Your task to perform on an android device: uninstall "Messages" Image 0: 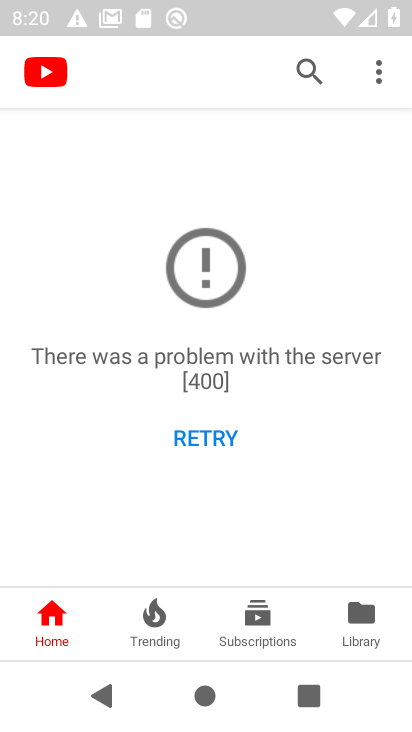
Step 0: press back button
Your task to perform on an android device: uninstall "Messages" Image 1: 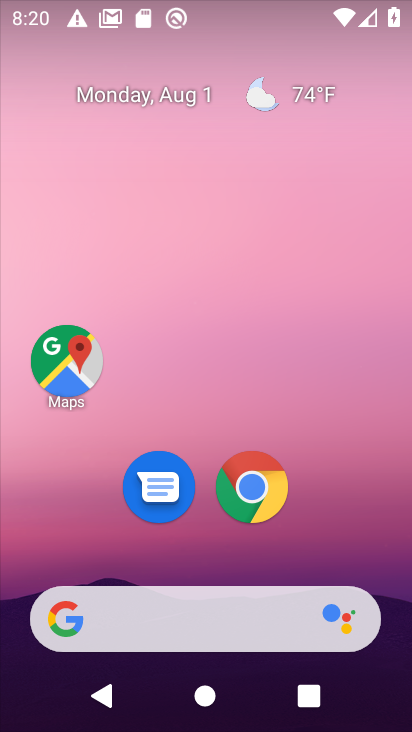
Step 1: drag from (199, 553) to (244, 9)
Your task to perform on an android device: uninstall "Messages" Image 2: 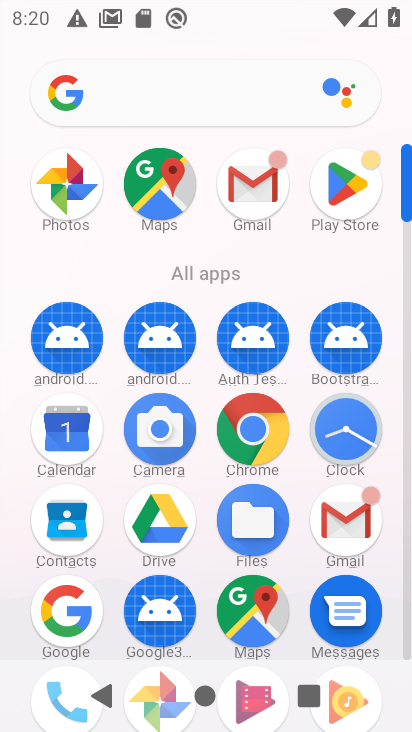
Step 2: click (342, 196)
Your task to perform on an android device: uninstall "Messages" Image 3: 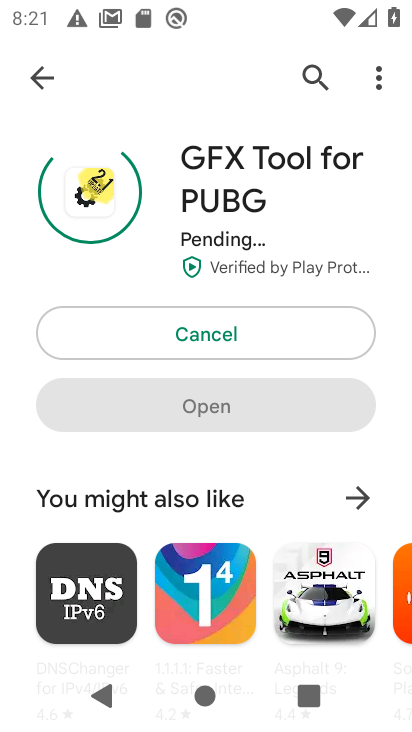
Step 3: click (242, 343)
Your task to perform on an android device: uninstall "Messages" Image 4: 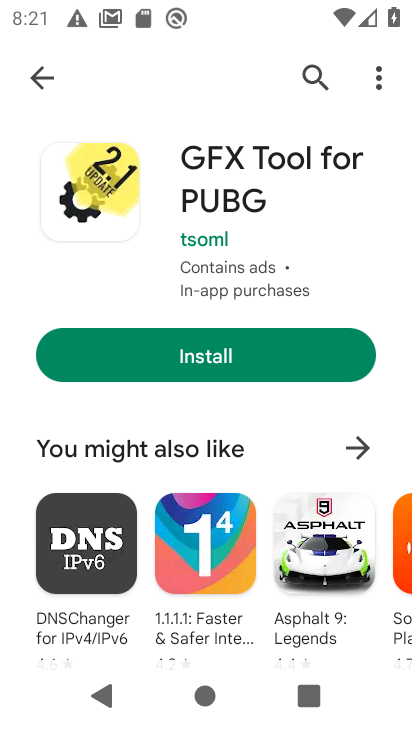
Step 4: click (35, 80)
Your task to perform on an android device: uninstall "Messages" Image 5: 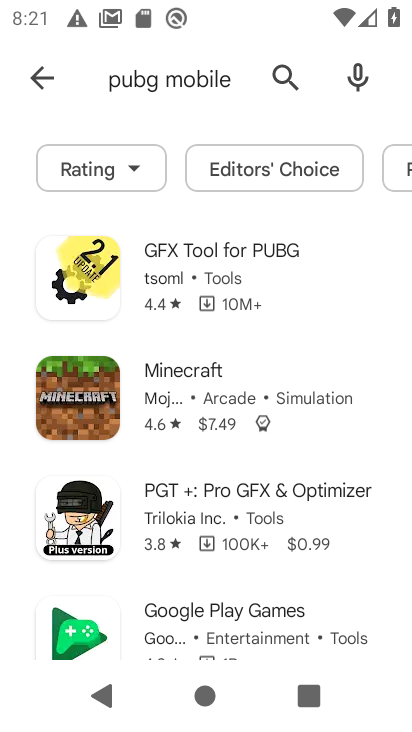
Step 5: click (280, 80)
Your task to perform on an android device: uninstall "Messages" Image 6: 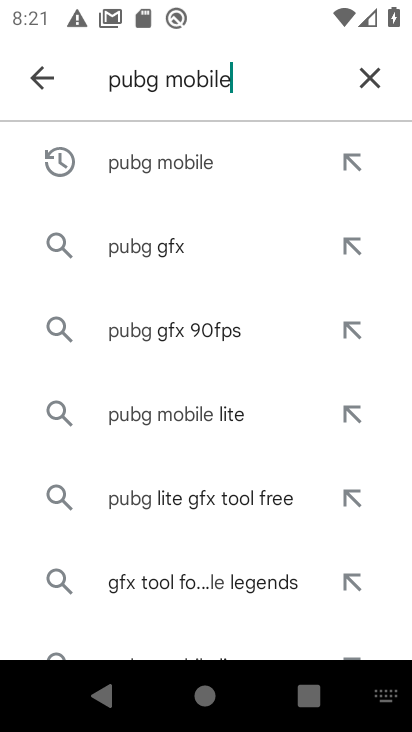
Step 6: click (373, 80)
Your task to perform on an android device: uninstall "Messages" Image 7: 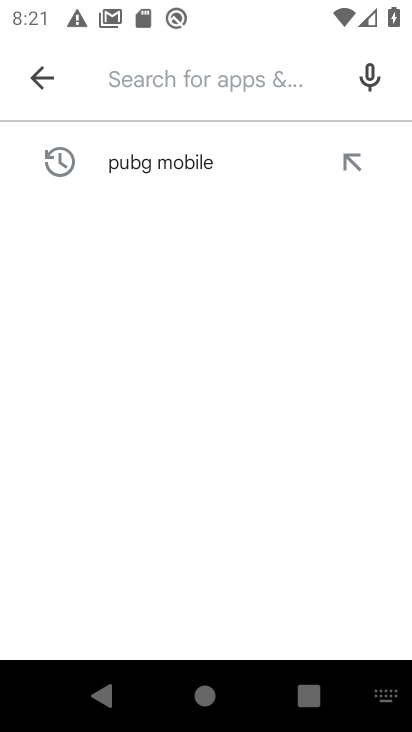
Step 7: type "Messages"
Your task to perform on an android device: uninstall "Messages" Image 8: 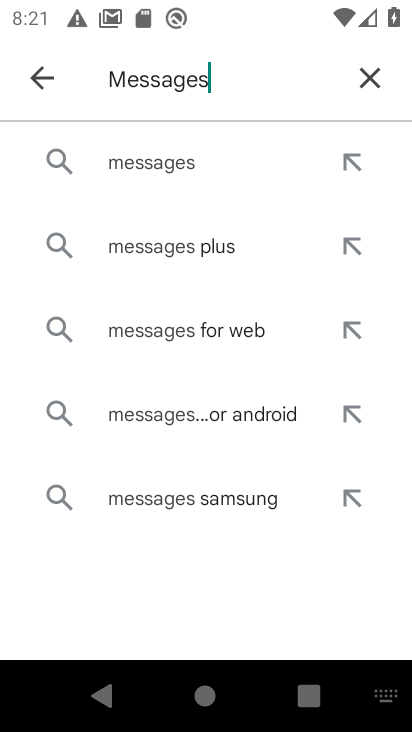
Step 8: click (134, 171)
Your task to perform on an android device: uninstall "Messages" Image 9: 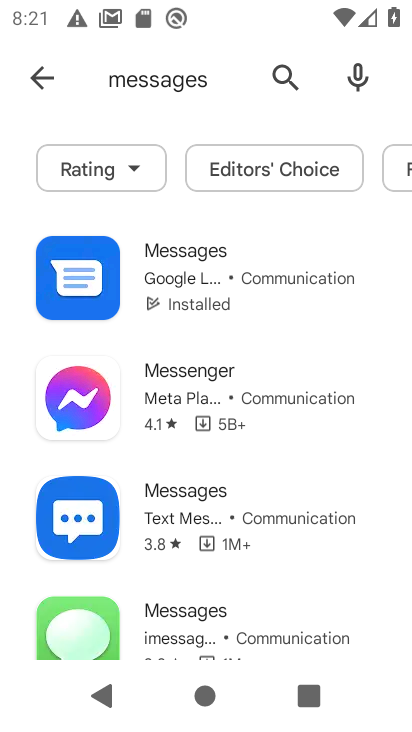
Step 9: click (205, 283)
Your task to perform on an android device: uninstall "Messages" Image 10: 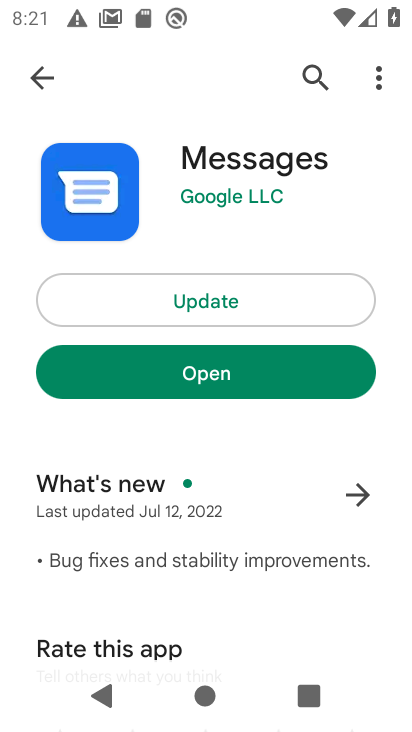
Step 10: click (184, 292)
Your task to perform on an android device: uninstall "Messages" Image 11: 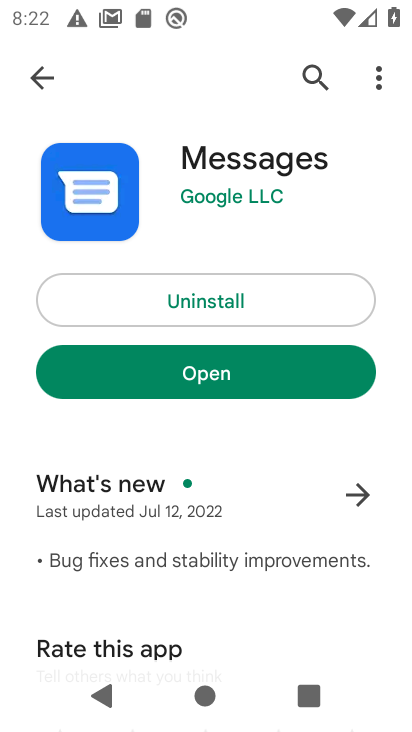
Step 11: click (313, 284)
Your task to perform on an android device: uninstall "Messages" Image 12: 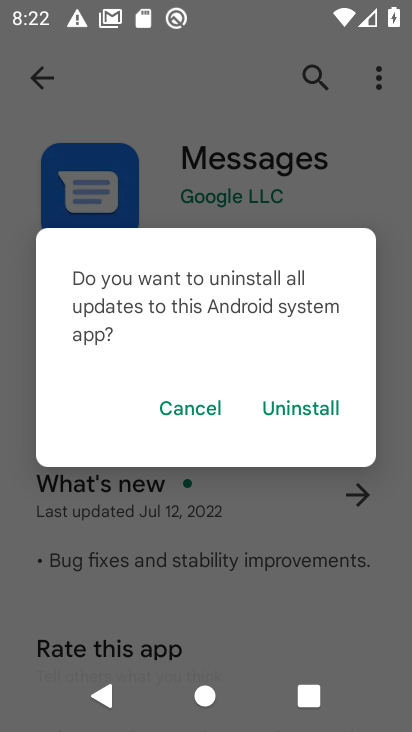
Step 12: click (289, 408)
Your task to perform on an android device: uninstall "Messages" Image 13: 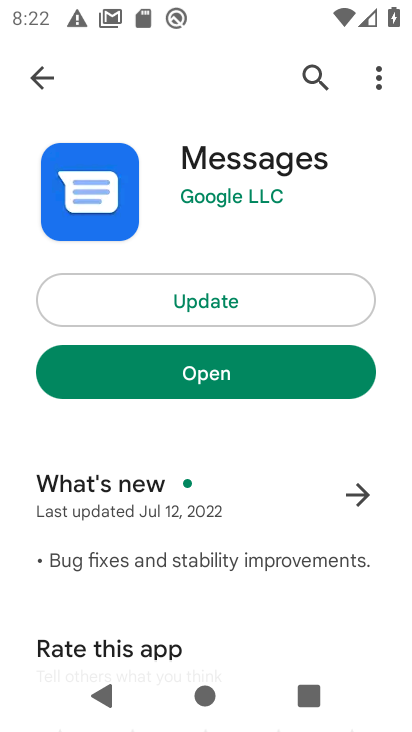
Step 13: task complete